Your task to perform on an android device: turn on javascript in the chrome app Image 0: 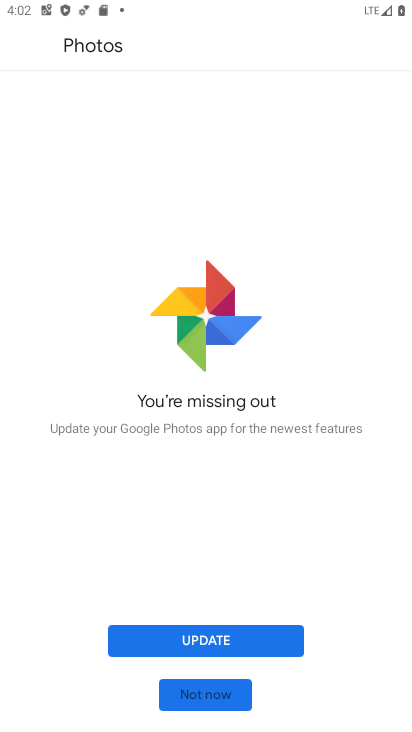
Step 0: press home button
Your task to perform on an android device: turn on javascript in the chrome app Image 1: 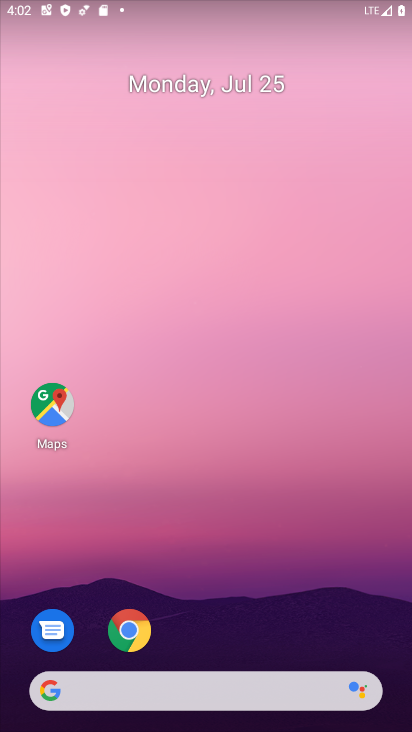
Step 1: click (138, 638)
Your task to perform on an android device: turn on javascript in the chrome app Image 2: 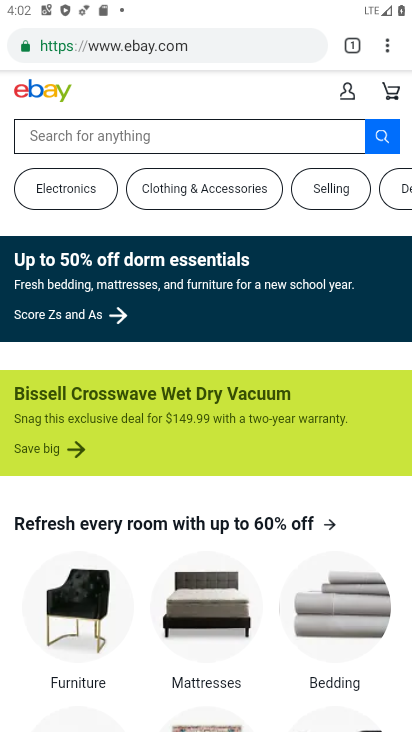
Step 2: click (396, 28)
Your task to perform on an android device: turn on javascript in the chrome app Image 3: 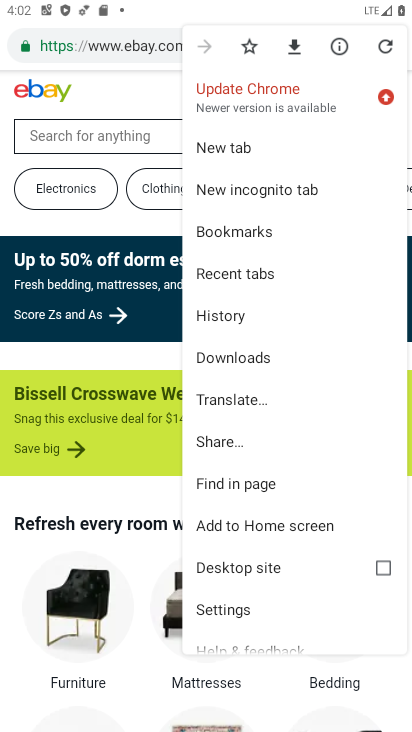
Step 3: drag from (237, 600) to (235, 427)
Your task to perform on an android device: turn on javascript in the chrome app Image 4: 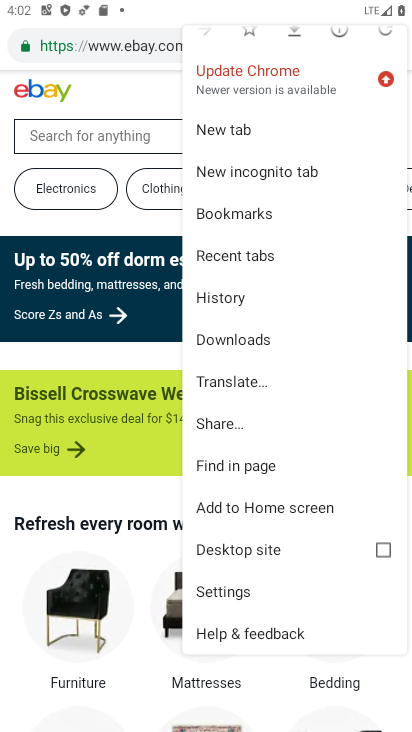
Step 4: click (229, 592)
Your task to perform on an android device: turn on javascript in the chrome app Image 5: 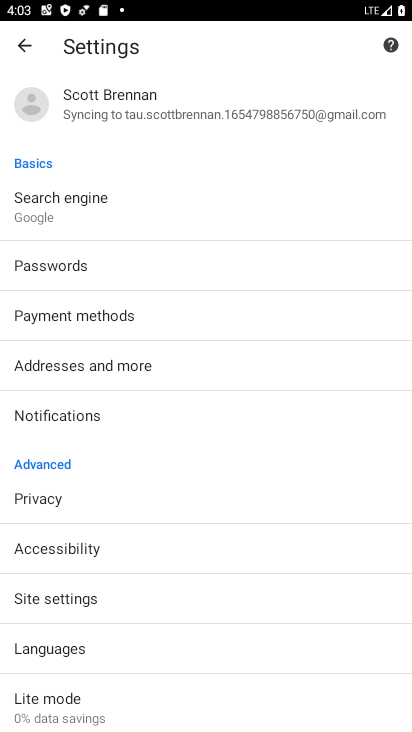
Step 5: click (69, 597)
Your task to perform on an android device: turn on javascript in the chrome app Image 6: 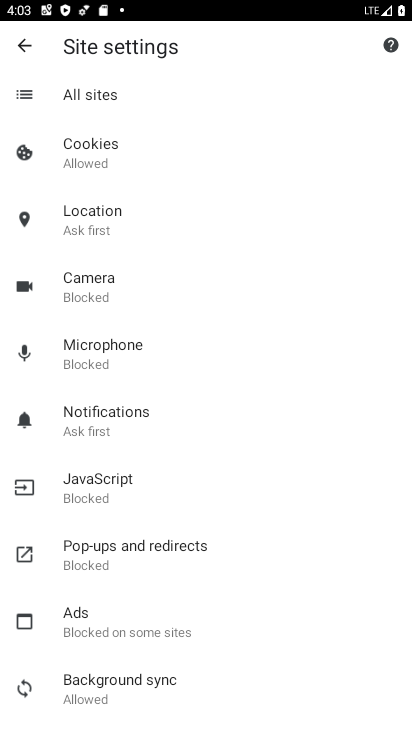
Step 6: click (110, 493)
Your task to perform on an android device: turn on javascript in the chrome app Image 7: 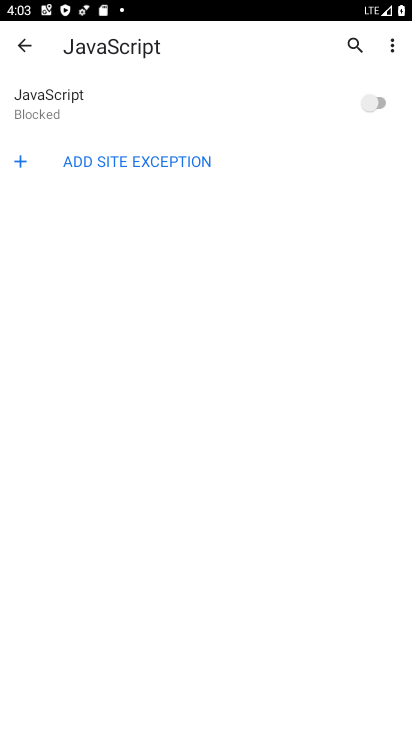
Step 7: click (376, 103)
Your task to perform on an android device: turn on javascript in the chrome app Image 8: 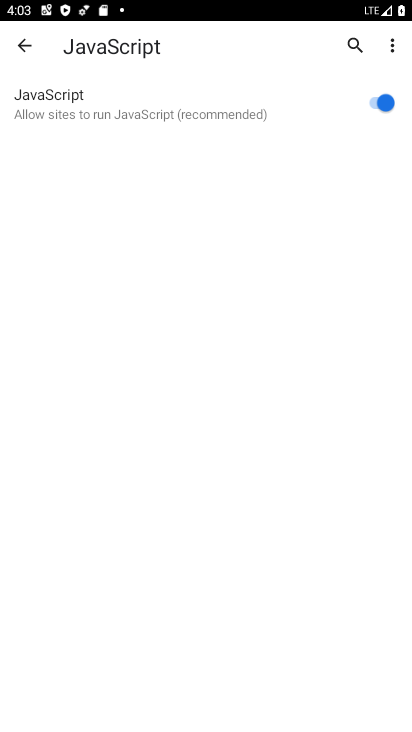
Step 8: task complete